Your task to perform on an android device: Go to internet settings Image 0: 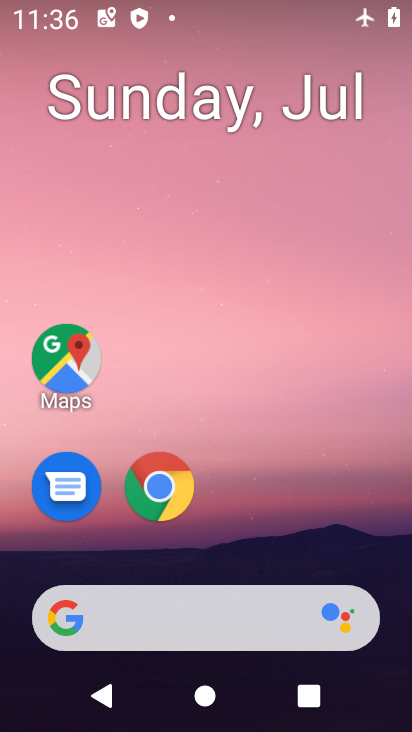
Step 0: press home button
Your task to perform on an android device: Go to internet settings Image 1: 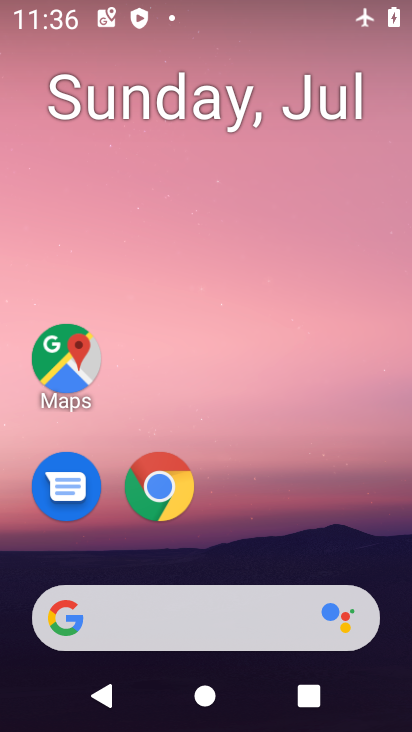
Step 1: drag from (350, 520) to (336, 139)
Your task to perform on an android device: Go to internet settings Image 2: 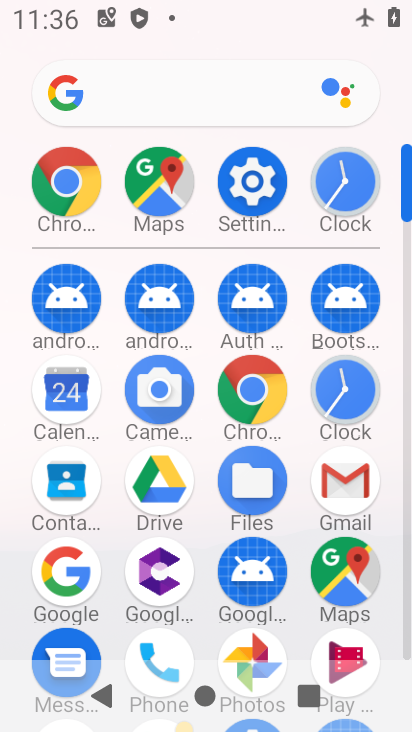
Step 2: click (263, 190)
Your task to perform on an android device: Go to internet settings Image 3: 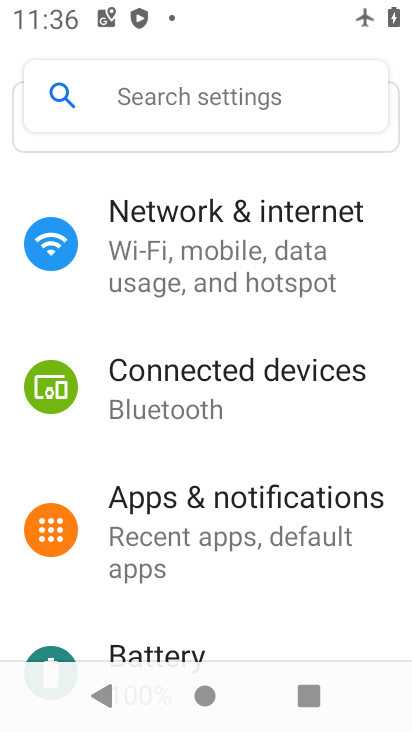
Step 3: drag from (335, 574) to (333, 422)
Your task to perform on an android device: Go to internet settings Image 4: 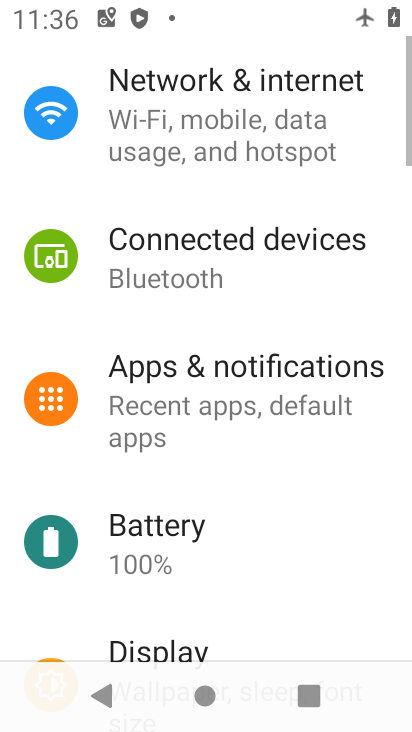
Step 4: drag from (334, 567) to (336, 416)
Your task to perform on an android device: Go to internet settings Image 5: 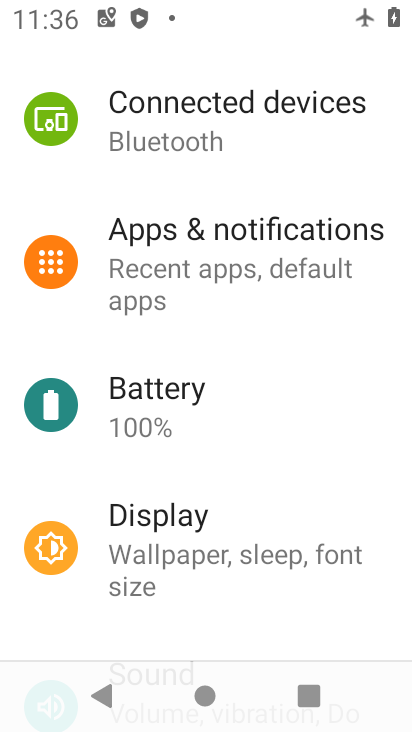
Step 5: drag from (353, 613) to (344, 404)
Your task to perform on an android device: Go to internet settings Image 6: 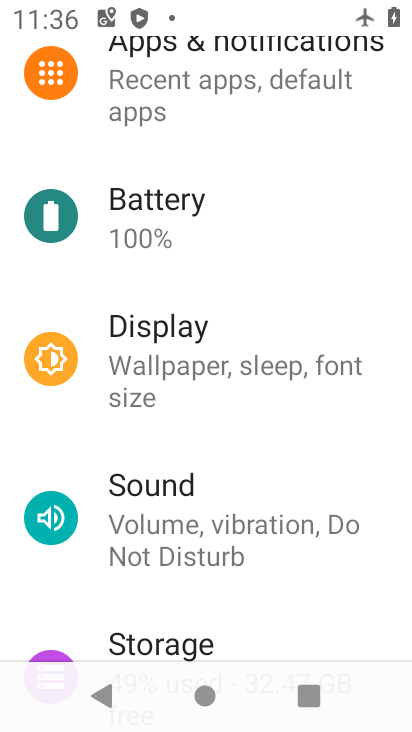
Step 6: drag from (361, 562) to (355, 379)
Your task to perform on an android device: Go to internet settings Image 7: 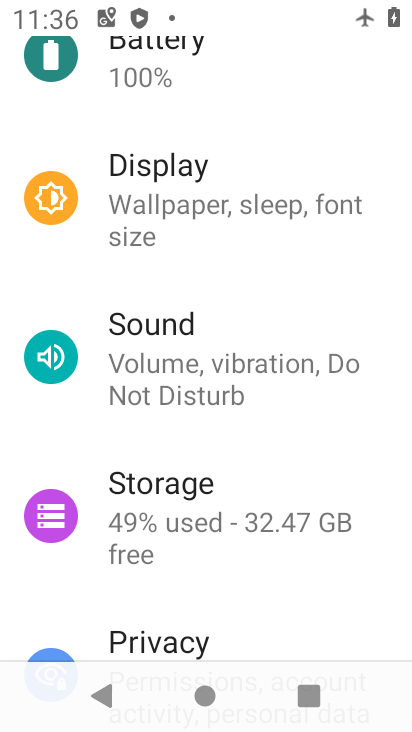
Step 7: drag from (345, 580) to (342, 453)
Your task to perform on an android device: Go to internet settings Image 8: 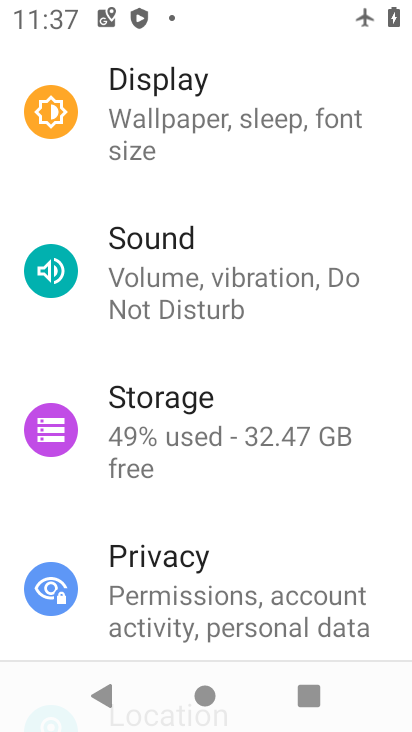
Step 8: drag from (348, 285) to (347, 393)
Your task to perform on an android device: Go to internet settings Image 9: 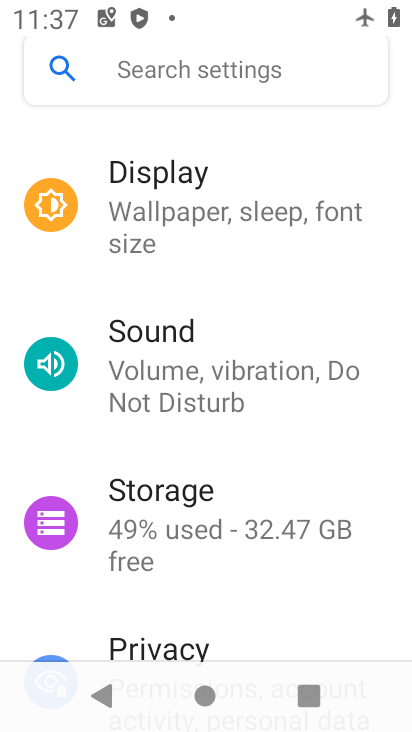
Step 9: drag from (357, 263) to (362, 368)
Your task to perform on an android device: Go to internet settings Image 10: 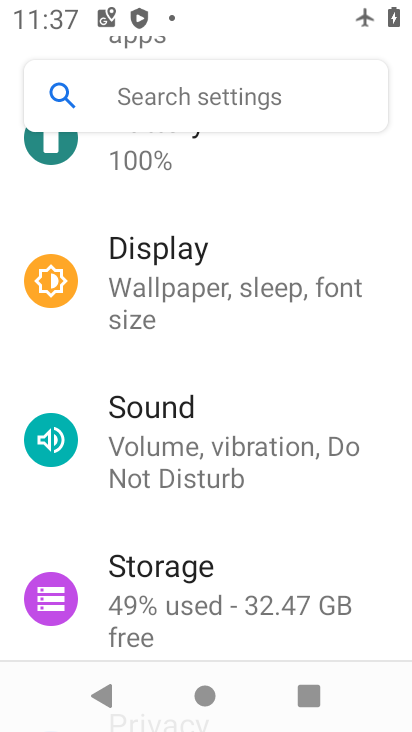
Step 10: drag from (357, 231) to (357, 340)
Your task to perform on an android device: Go to internet settings Image 11: 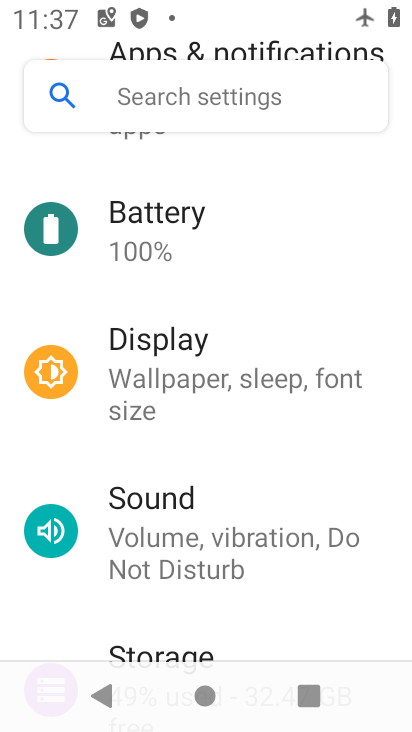
Step 11: drag from (357, 214) to (355, 380)
Your task to perform on an android device: Go to internet settings Image 12: 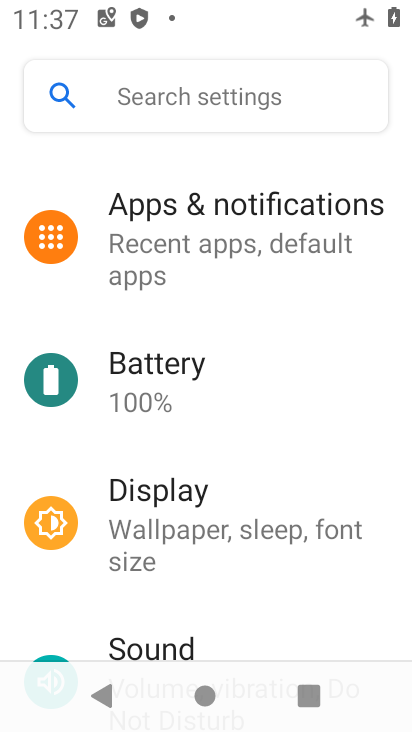
Step 12: drag from (376, 234) to (364, 378)
Your task to perform on an android device: Go to internet settings Image 13: 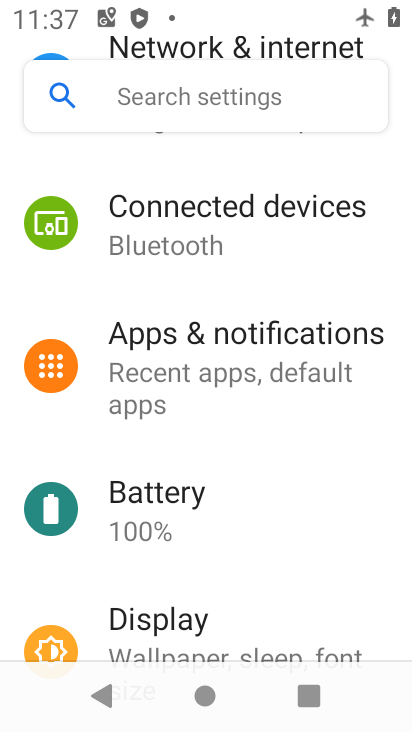
Step 13: drag from (363, 223) to (355, 360)
Your task to perform on an android device: Go to internet settings Image 14: 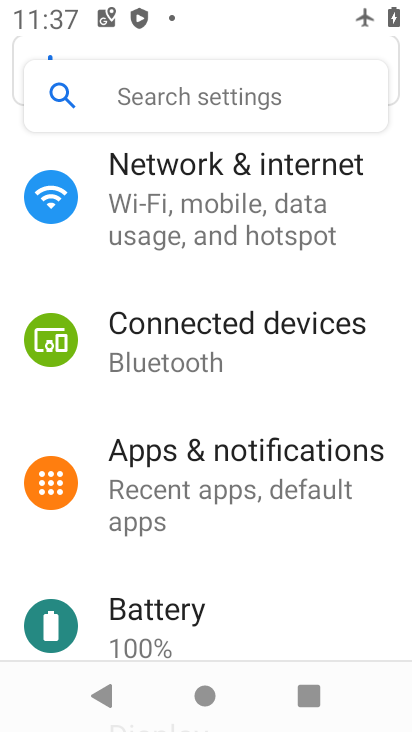
Step 14: drag from (353, 201) to (346, 479)
Your task to perform on an android device: Go to internet settings Image 15: 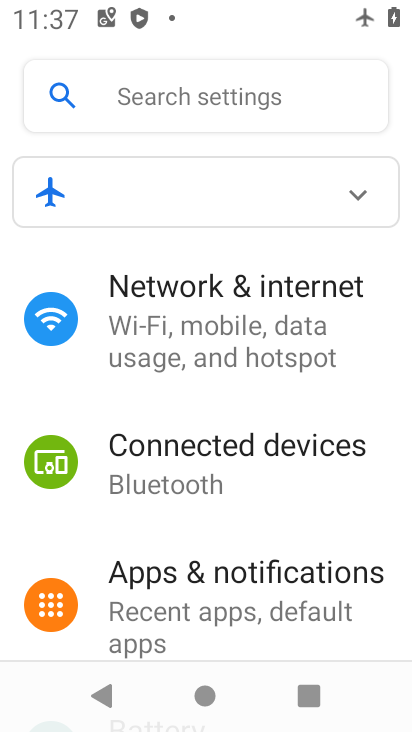
Step 15: click (270, 333)
Your task to perform on an android device: Go to internet settings Image 16: 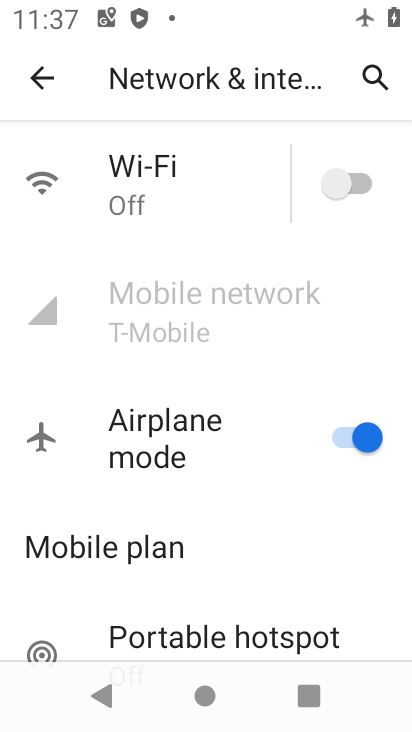
Step 16: task complete